Your task to perform on an android device: change the clock display to show seconds Image 0: 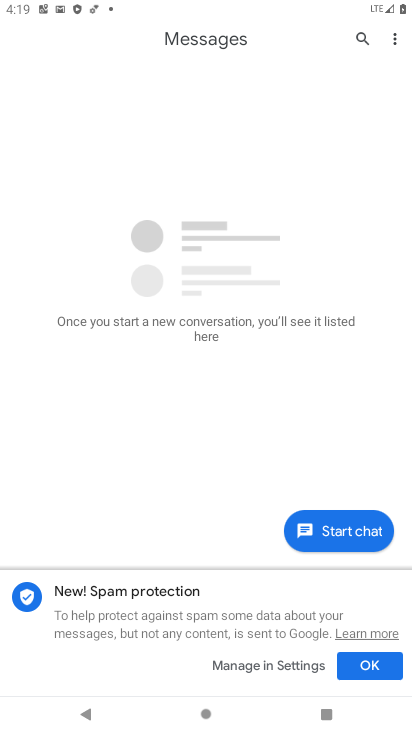
Step 0: press home button
Your task to perform on an android device: change the clock display to show seconds Image 1: 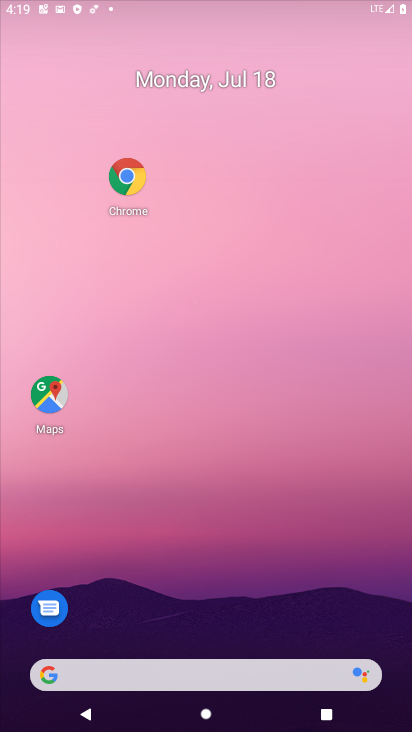
Step 1: drag from (198, 557) to (295, 2)
Your task to perform on an android device: change the clock display to show seconds Image 2: 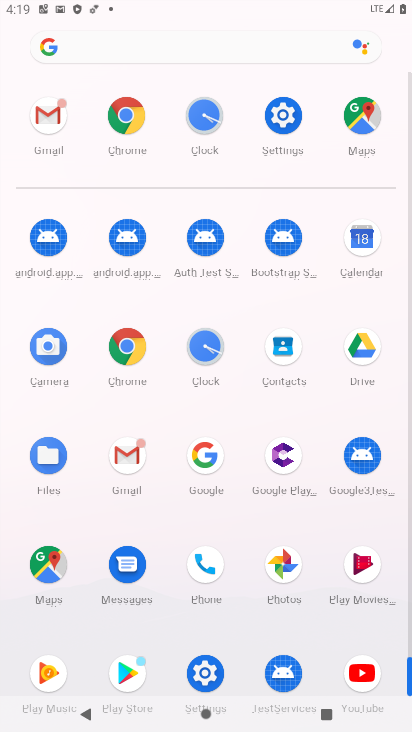
Step 2: click (289, 126)
Your task to perform on an android device: change the clock display to show seconds Image 3: 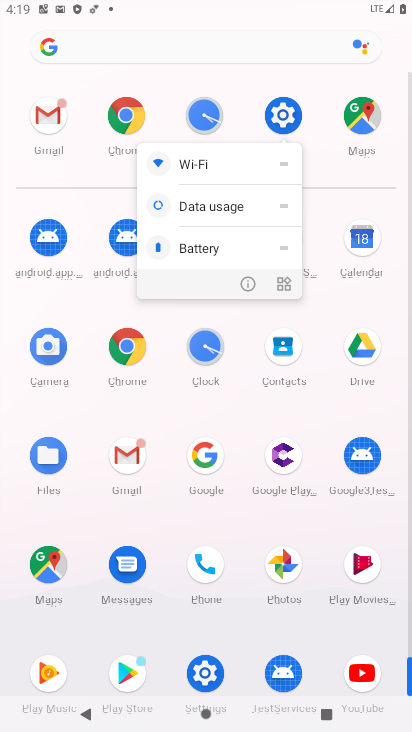
Step 3: click (296, 109)
Your task to perform on an android device: change the clock display to show seconds Image 4: 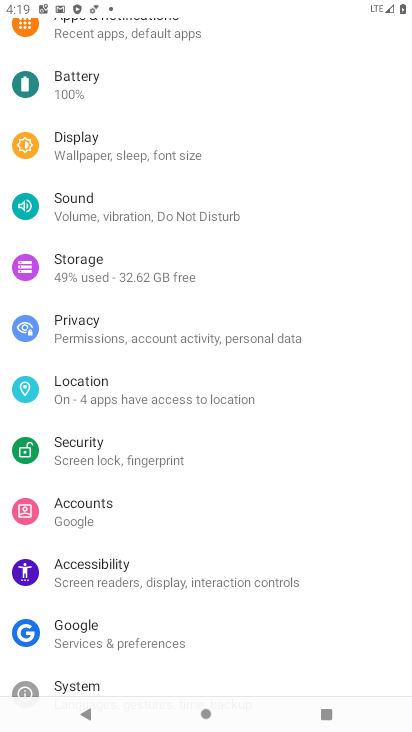
Step 4: press home button
Your task to perform on an android device: change the clock display to show seconds Image 5: 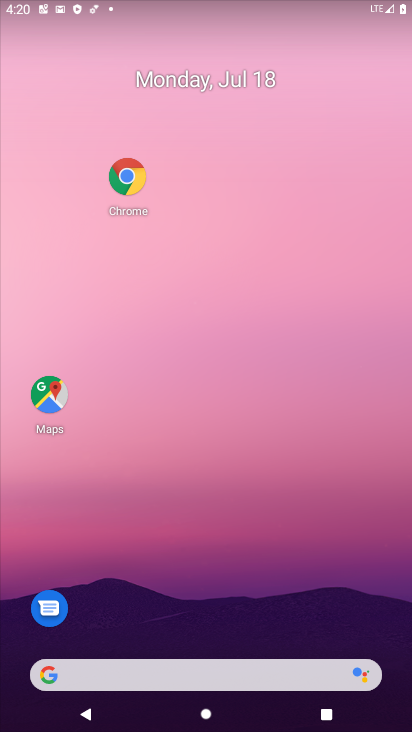
Step 5: drag from (190, 619) to (294, 154)
Your task to perform on an android device: change the clock display to show seconds Image 6: 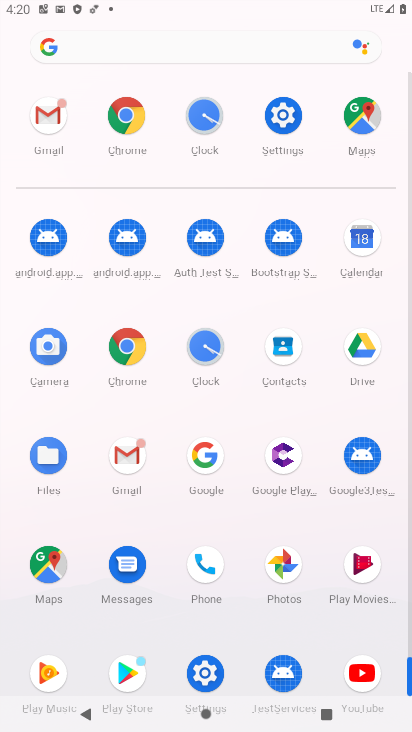
Step 6: click (201, 127)
Your task to perform on an android device: change the clock display to show seconds Image 7: 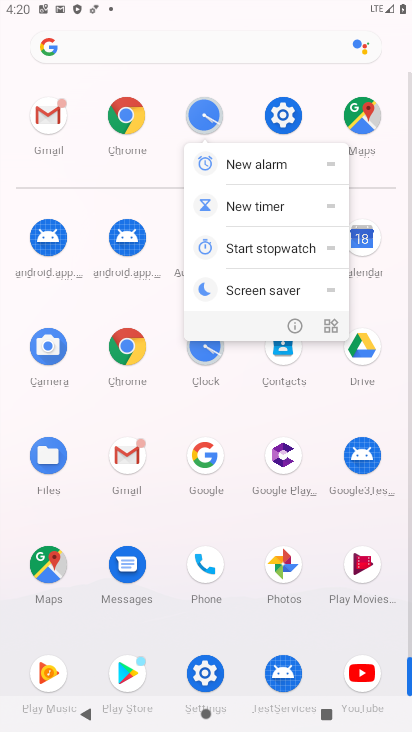
Step 7: click (208, 132)
Your task to perform on an android device: change the clock display to show seconds Image 8: 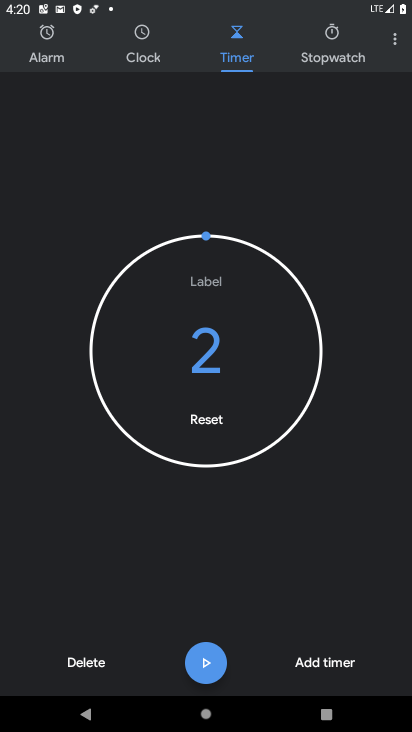
Step 8: click (392, 44)
Your task to perform on an android device: change the clock display to show seconds Image 9: 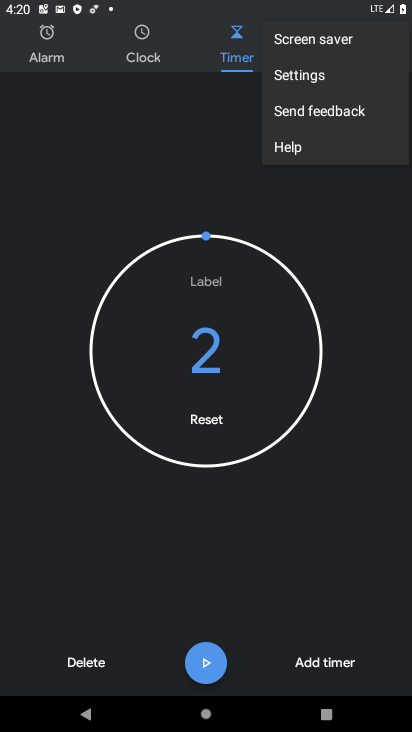
Step 9: click (305, 78)
Your task to perform on an android device: change the clock display to show seconds Image 10: 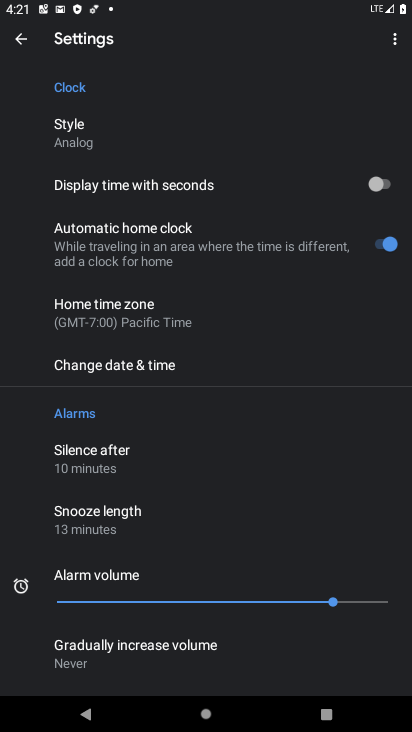
Step 10: click (228, 179)
Your task to perform on an android device: change the clock display to show seconds Image 11: 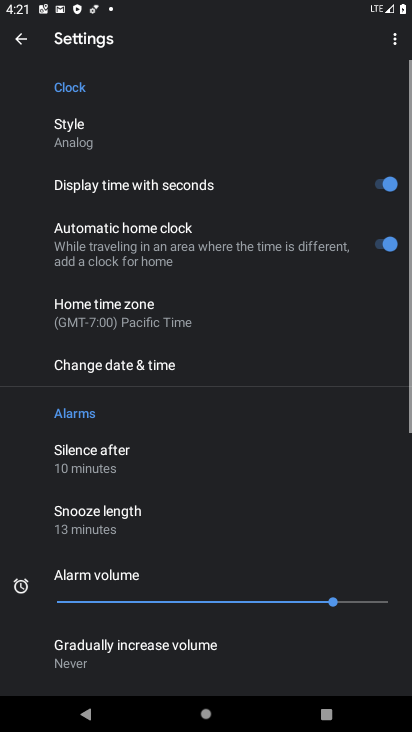
Step 11: task complete